Your task to perform on an android device: Open the Play Movies app and select the watchlist tab. Image 0: 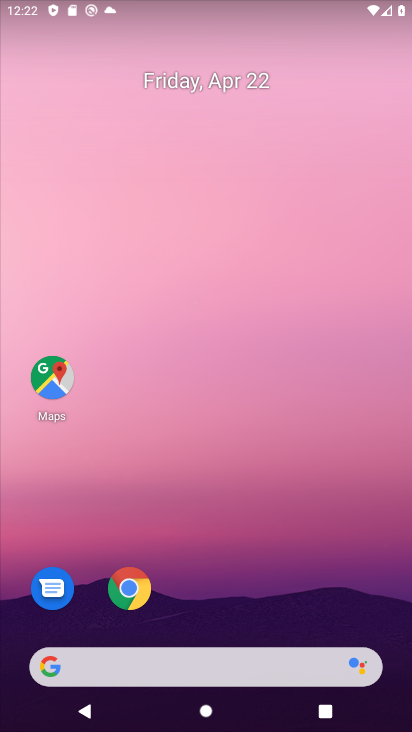
Step 0: drag from (277, 690) to (277, 147)
Your task to perform on an android device: Open the Play Movies app and select the watchlist tab. Image 1: 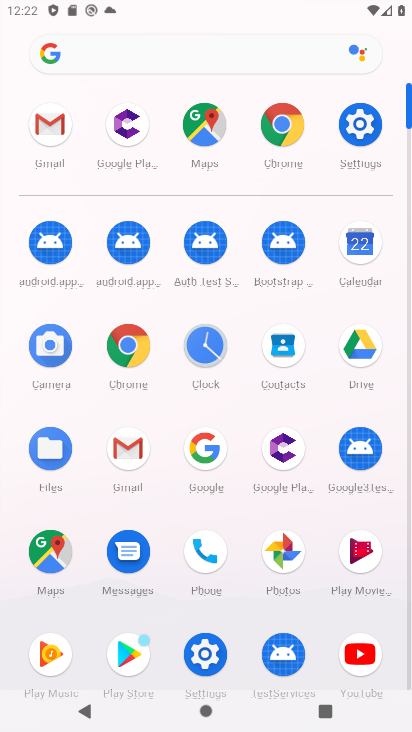
Step 1: click (353, 553)
Your task to perform on an android device: Open the Play Movies app and select the watchlist tab. Image 2: 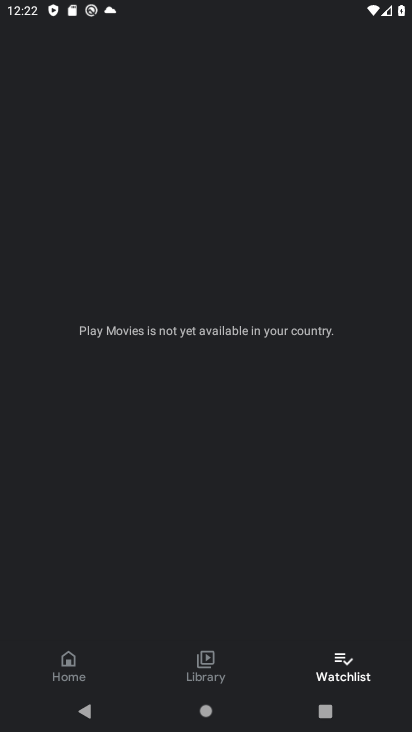
Step 2: click (348, 667)
Your task to perform on an android device: Open the Play Movies app and select the watchlist tab. Image 3: 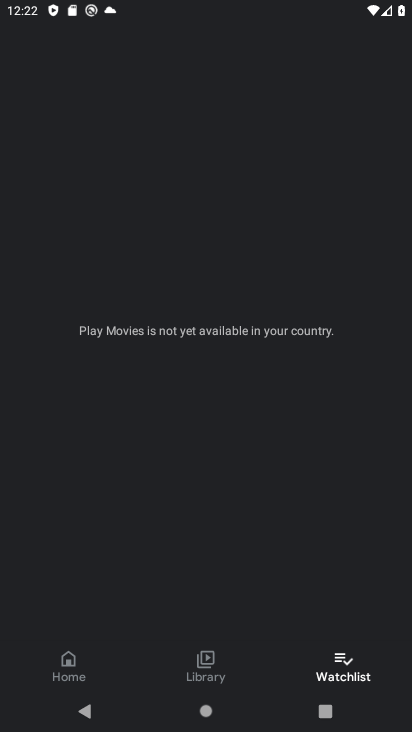
Step 3: task complete